Your task to perform on an android device: empty trash in the gmail app Image 0: 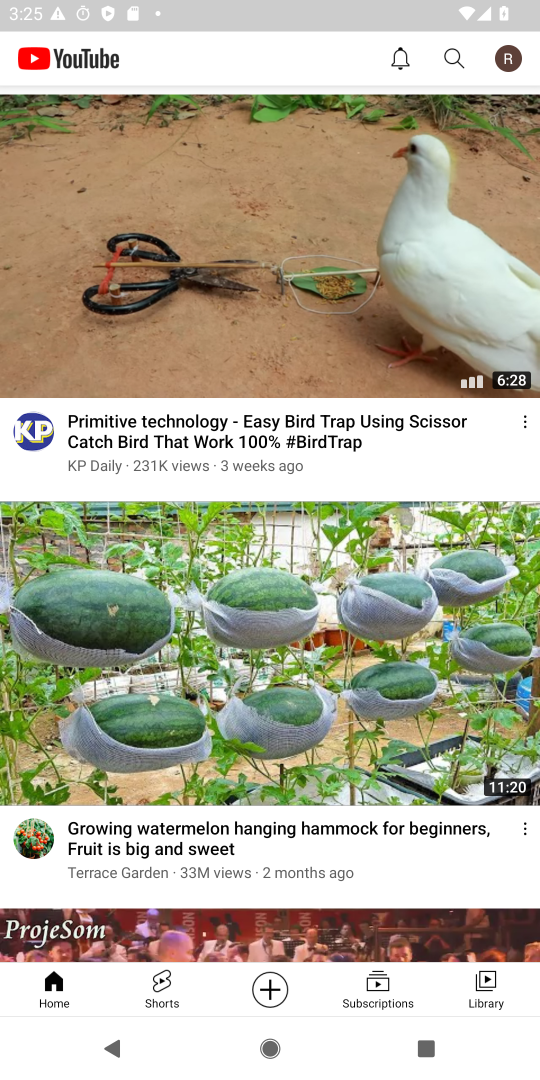
Step 0: press home button
Your task to perform on an android device: empty trash in the gmail app Image 1: 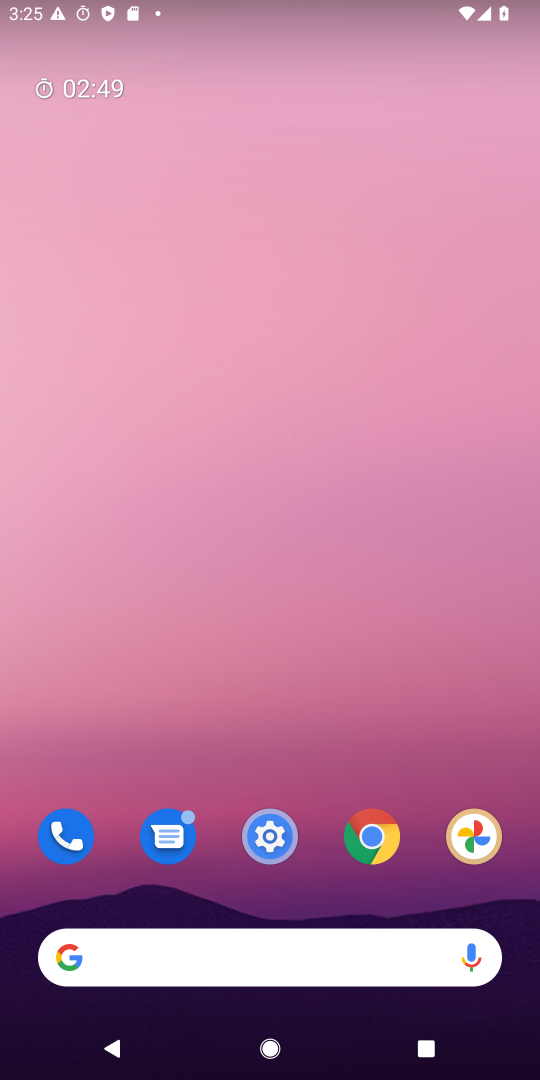
Step 1: drag from (332, 907) to (366, 188)
Your task to perform on an android device: empty trash in the gmail app Image 2: 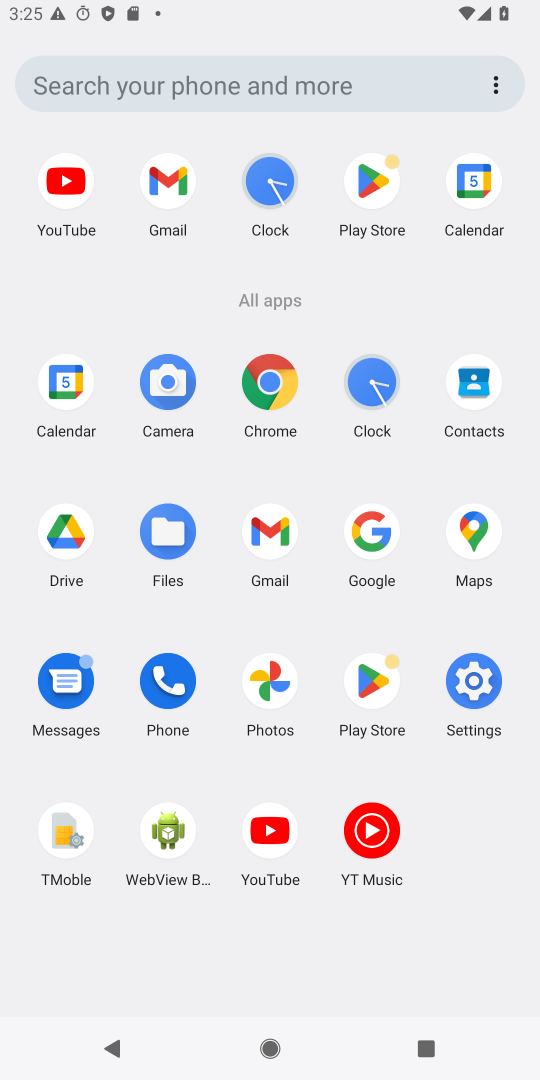
Step 2: click (261, 537)
Your task to perform on an android device: empty trash in the gmail app Image 3: 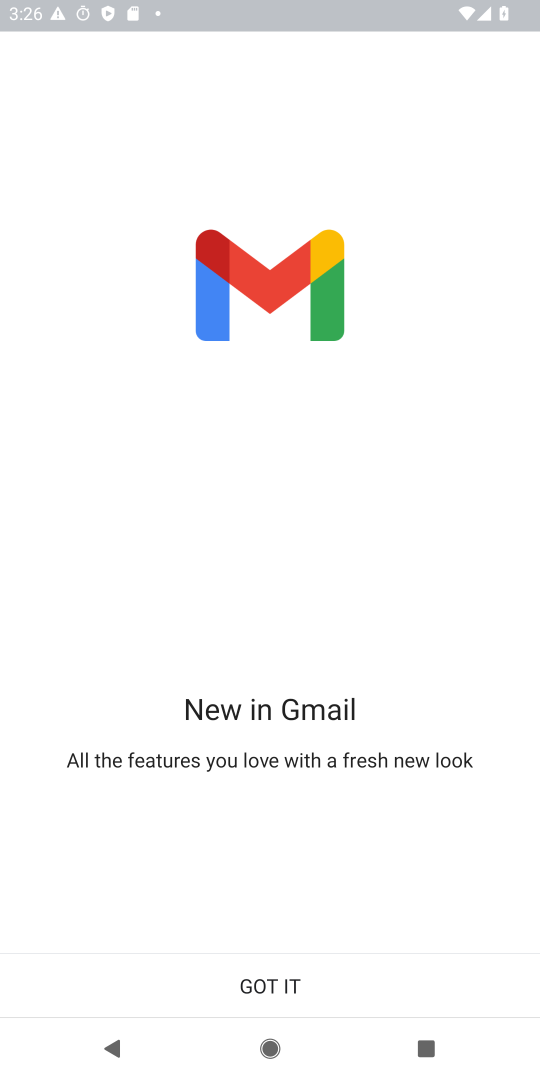
Step 3: click (280, 987)
Your task to perform on an android device: empty trash in the gmail app Image 4: 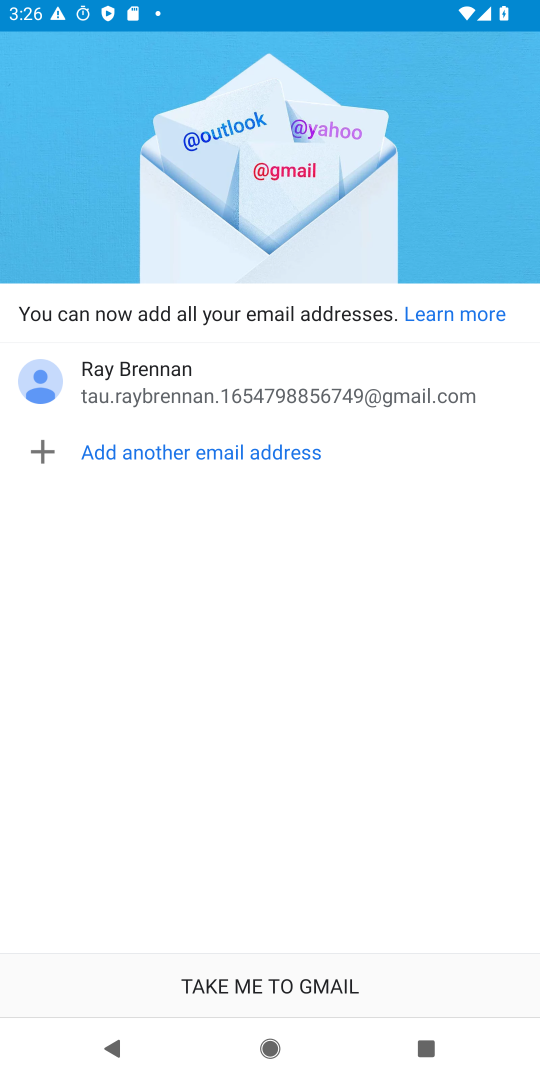
Step 4: click (280, 987)
Your task to perform on an android device: empty trash in the gmail app Image 5: 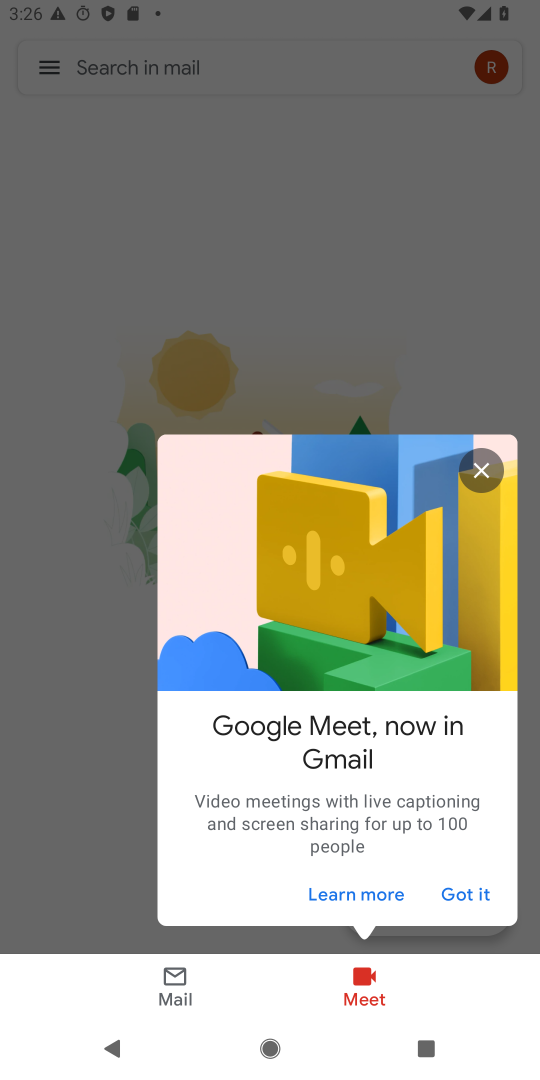
Step 5: click (490, 458)
Your task to perform on an android device: empty trash in the gmail app Image 6: 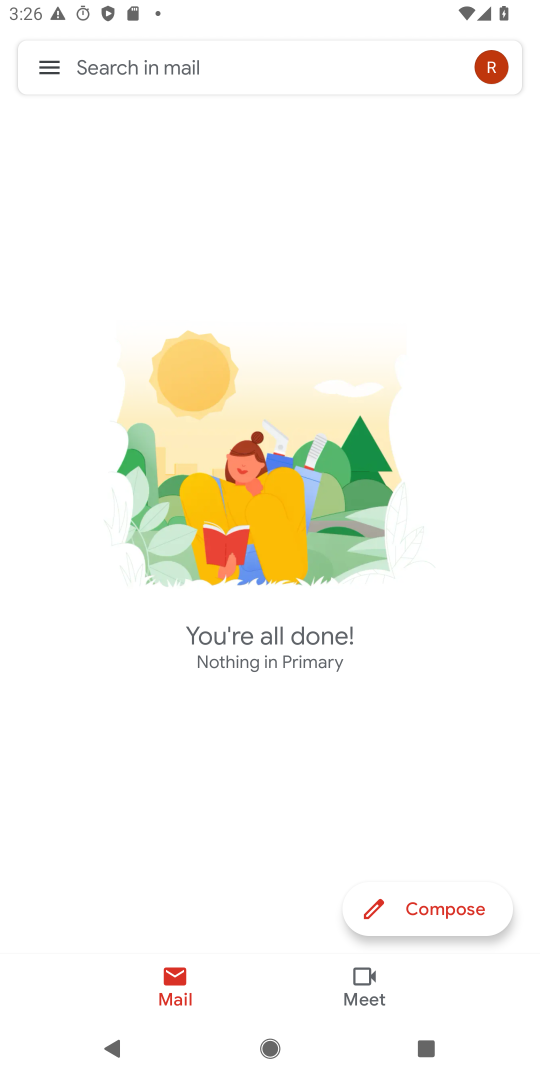
Step 6: click (41, 62)
Your task to perform on an android device: empty trash in the gmail app Image 7: 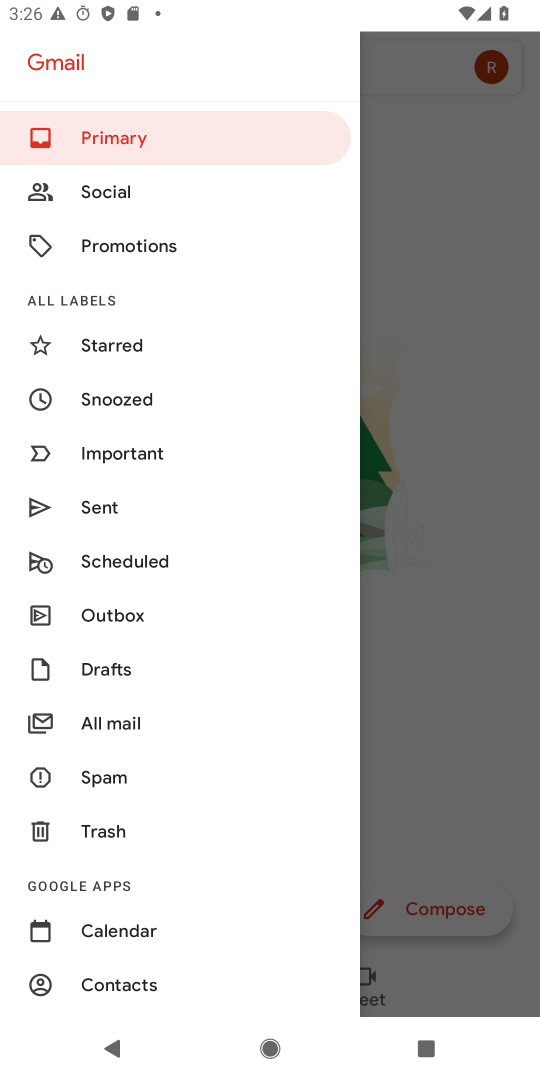
Step 7: click (115, 844)
Your task to perform on an android device: empty trash in the gmail app Image 8: 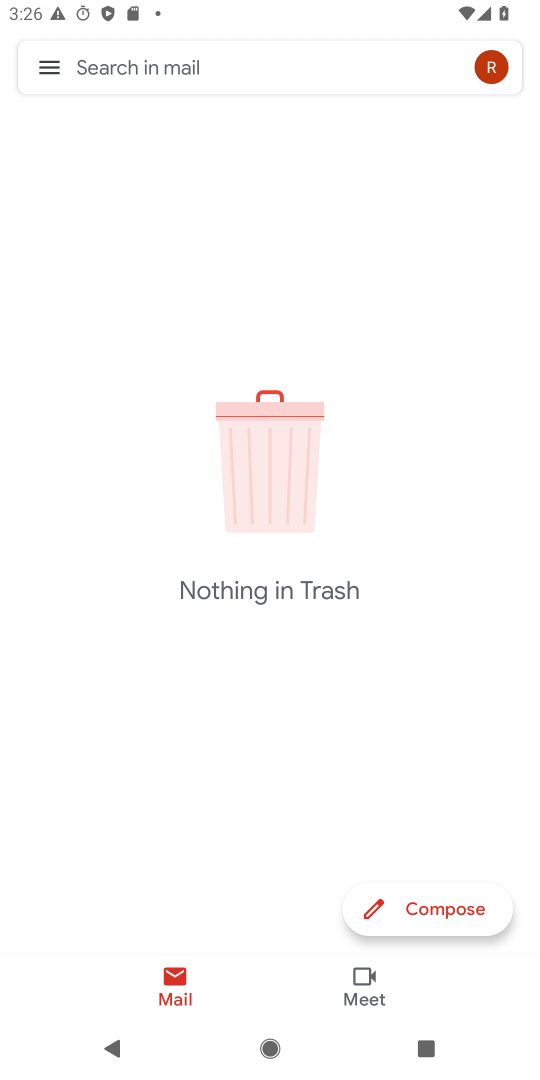
Step 8: task complete